Your task to perform on an android device: turn on showing notifications on the lock screen Image 0: 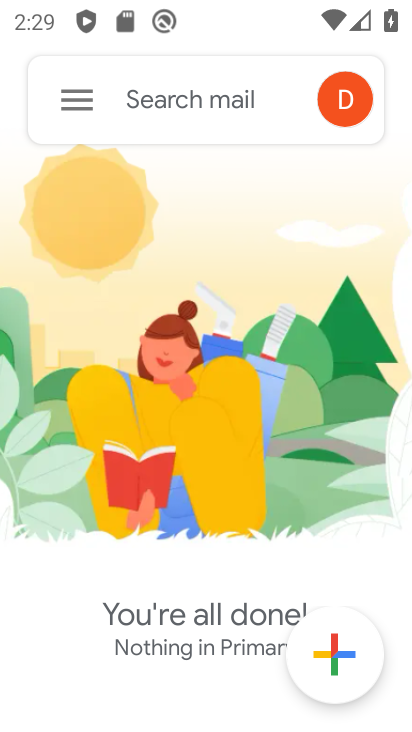
Step 0: press home button
Your task to perform on an android device: turn on showing notifications on the lock screen Image 1: 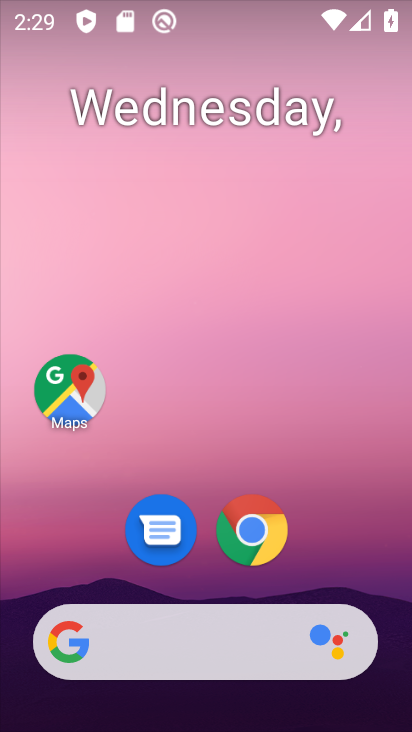
Step 1: drag from (194, 607) to (199, 40)
Your task to perform on an android device: turn on showing notifications on the lock screen Image 2: 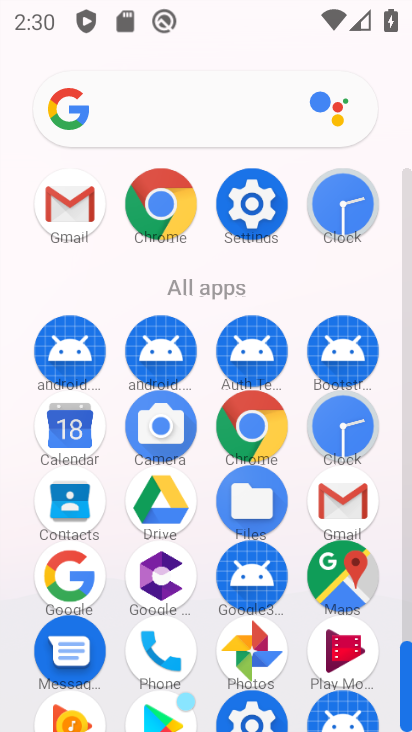
Step 2: click (271, 199)
Your task to perform on an android device: turn on showing notifications on the lock screen Image 3: 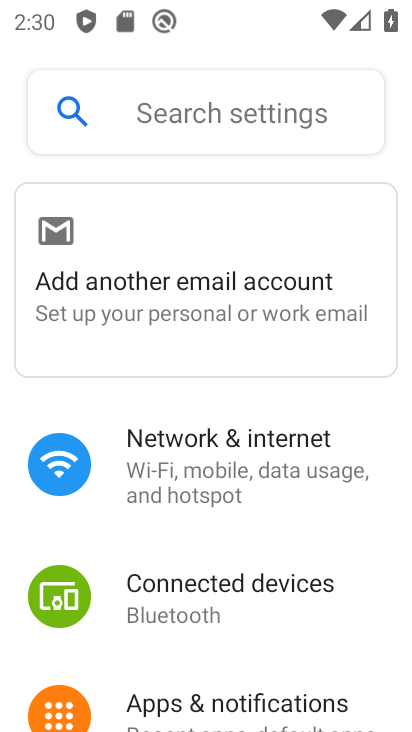
Step 3: click (279, 697)
Your task to perform on an android device: turn on showing notifications on the lock screen Image 4: 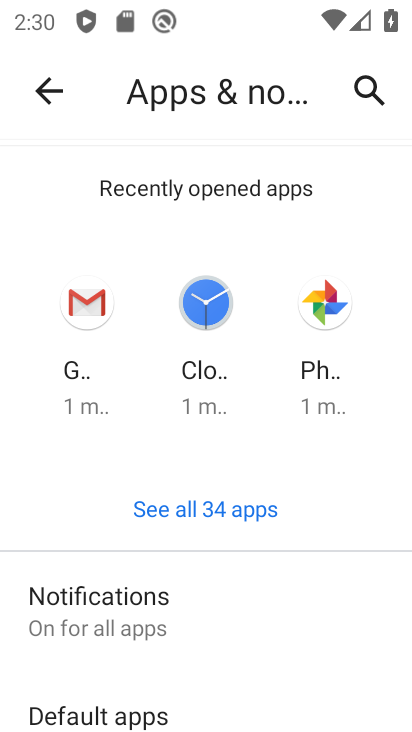
Step 4: drag from (200, 690) to (181, 164)
Your task to perform on an android device: turn on showing notifications on the lock screen Image 5: 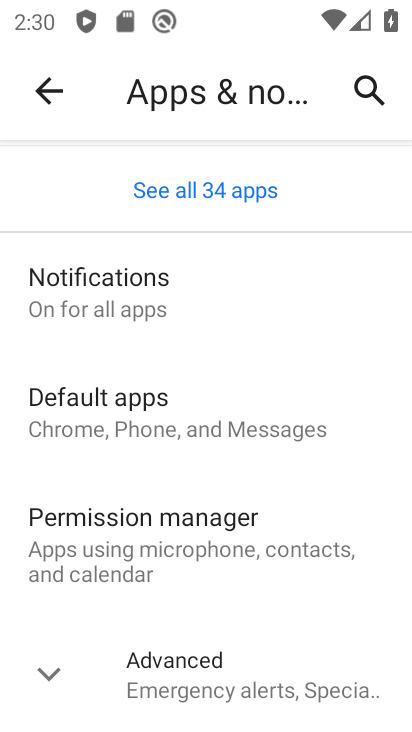
Step 5: click (224, 657)
Your task to perform on an android device: turn on showing notifications on the lock screen Image 6: 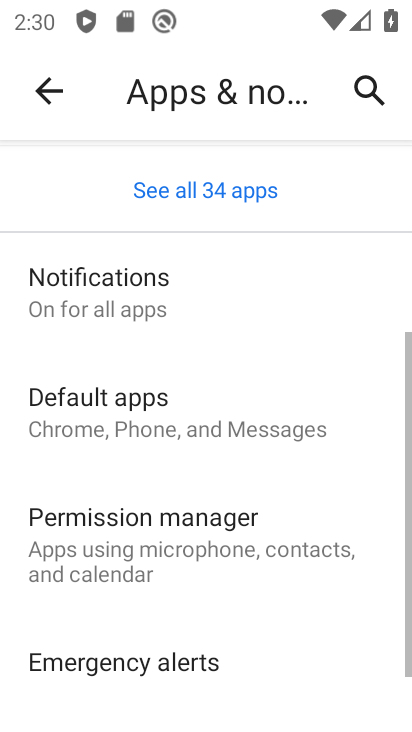
Step 6: click (181, 311)
Your task to perform on an android device: turn on showing notifications on the lock screen Image 7: 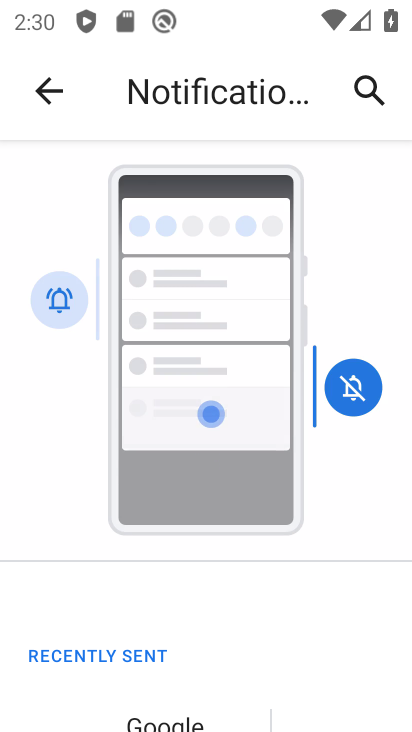
Step 7: drag from (191, 593) to (213, 20)
Your task to perform on an android device: turn on showing notifications on the lock screen Image 8: 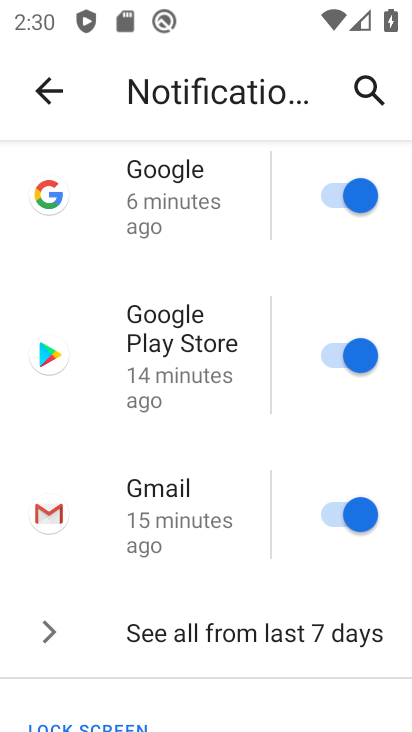
Step 8: drag from (197, 680) to (187, 113)
Your task to perform on an android device: turn on showing notifications on the lock screen Image 9: 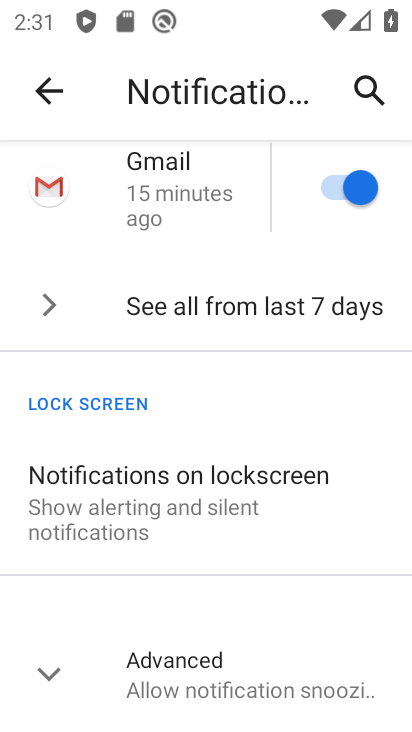
Step 9: click (167, 541)
Your task to perform on an android device: turn on showing notifications on the lock screen Image 10: 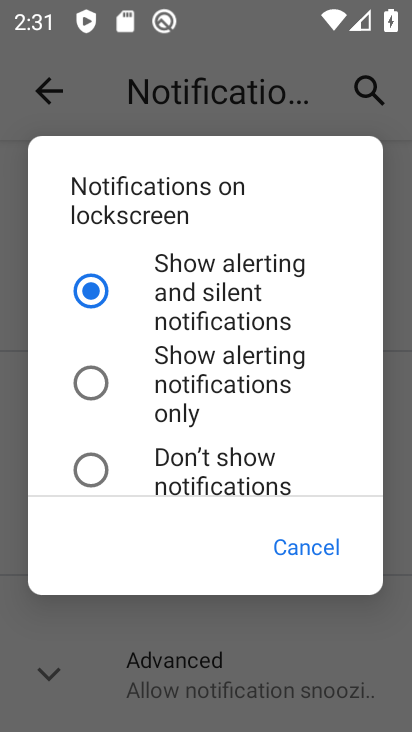
Step 10: click (193, 312)
Your task to perform on an android device: turn on showing notifications on the lock screen Image 11: 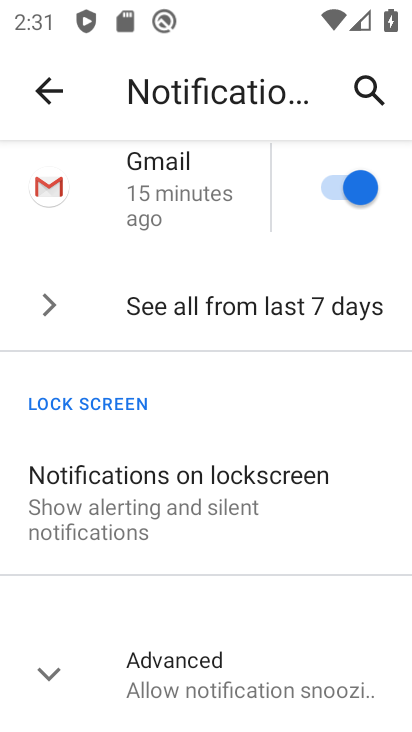
Step 11: task complete